Your task to perform on an android device: Open my contact list Image 0: 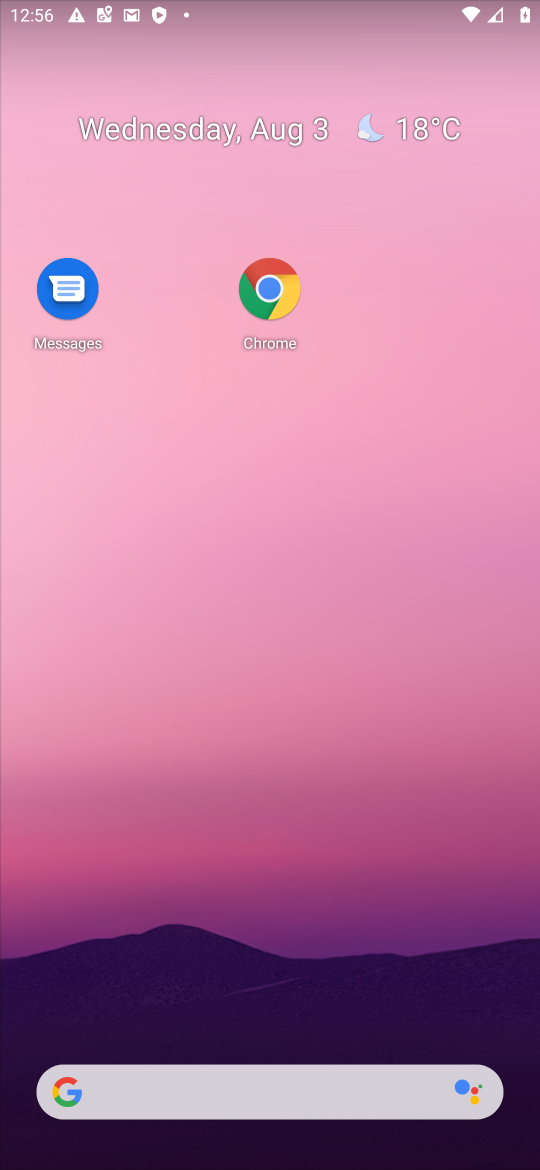
Step 0: drag from (280, 266) to (278, 133)
Your task to perform on an android device: Open my contact list Image 1: 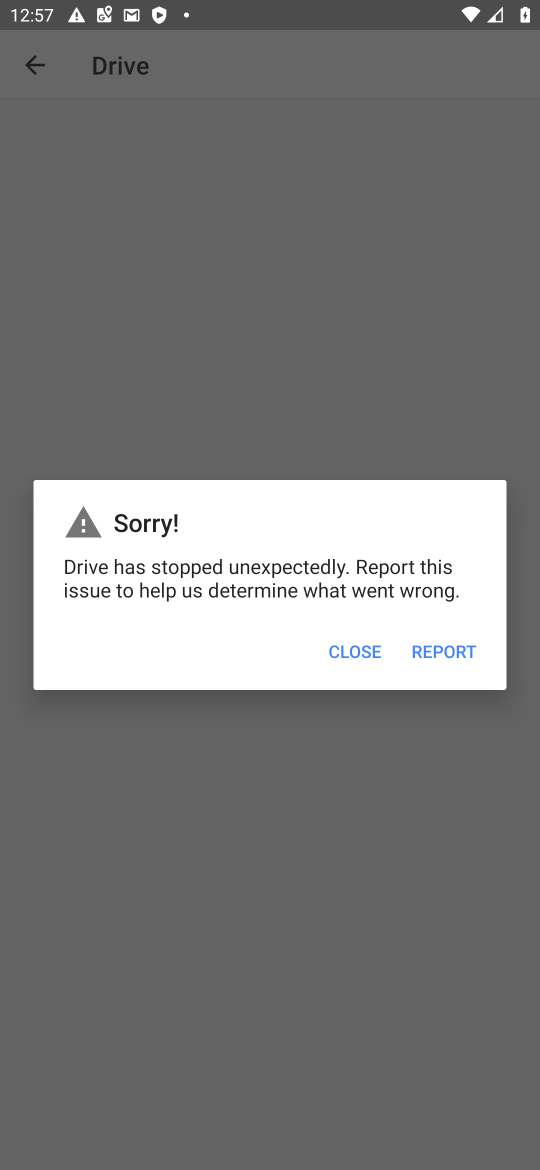
Step 1: press home button
Your task to perform on an android device: Open my contact list Image 2: 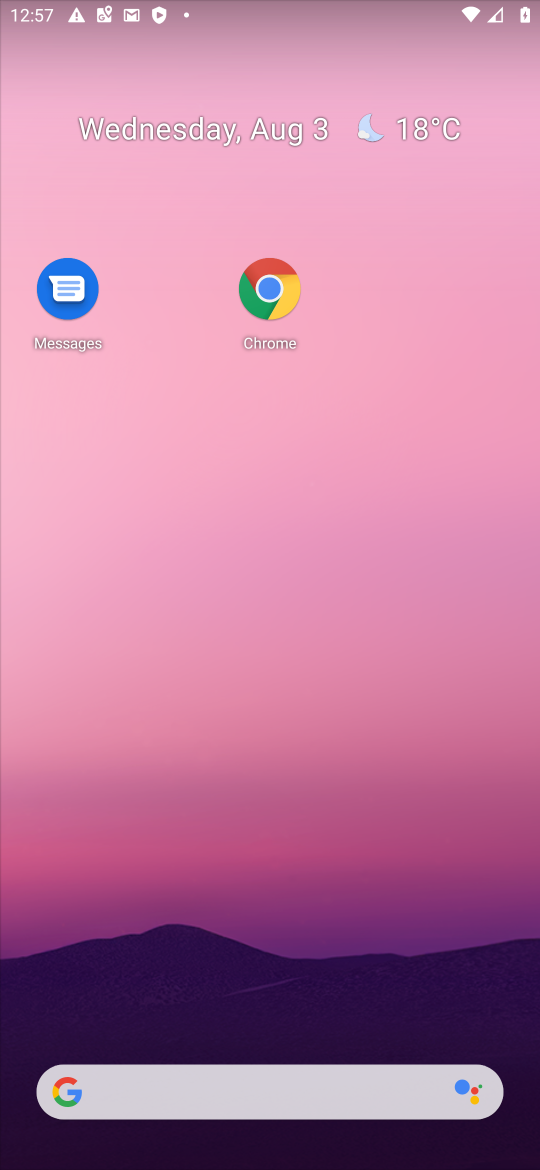
Step 2: drag from (379, 1043) to (284, 145)
Your task to perform on an android device: Open my contact list Image 3: 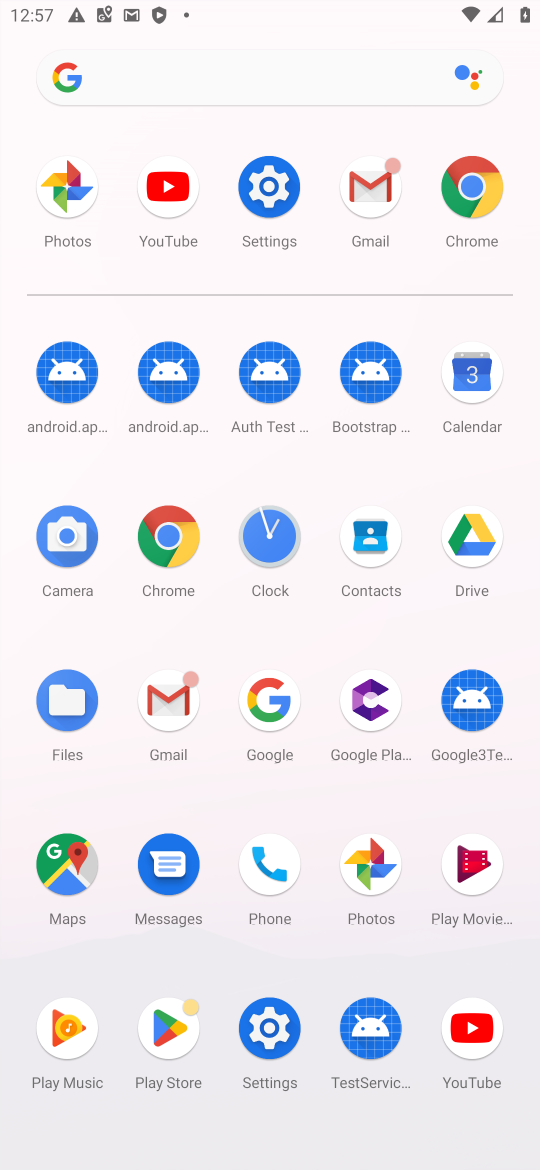
Step 3: click (362, 527)
Your task to perform on an android device: Open my contact list Image 4: 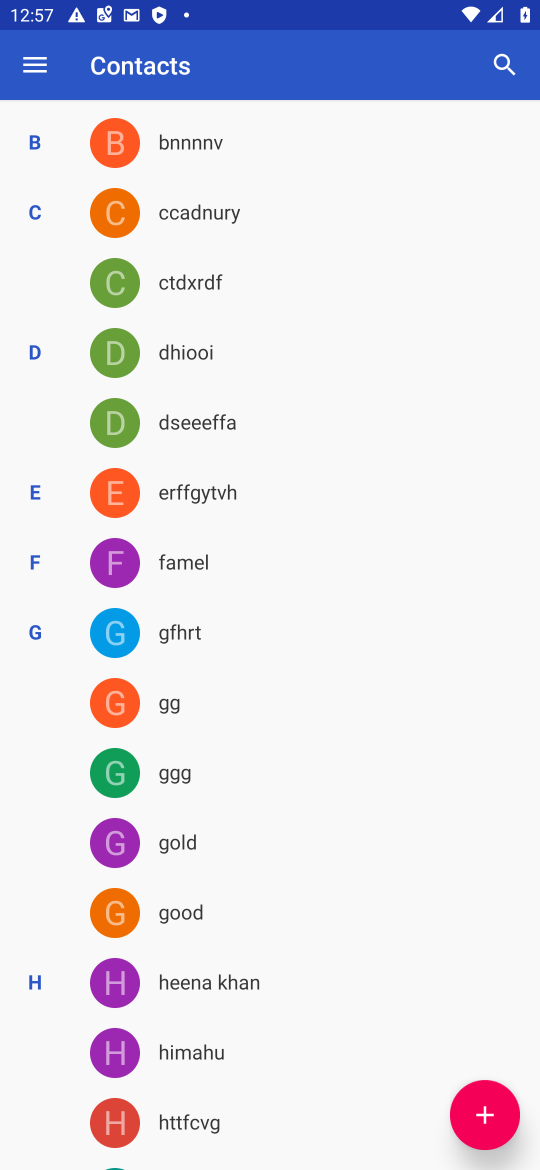
Step 4: task complete